Your task to perform on an android device: Go to Yahoo.com Image 0: 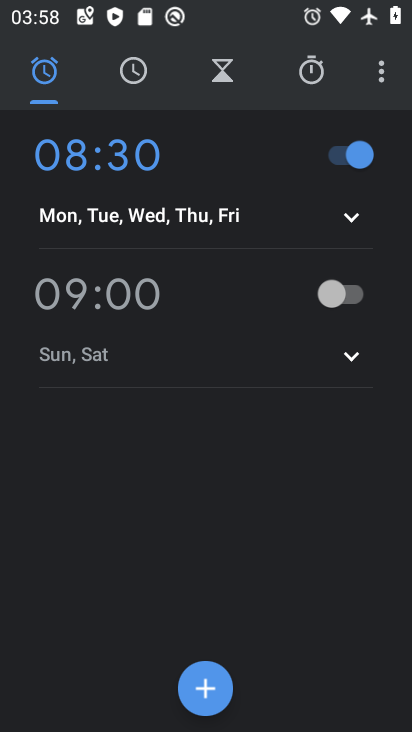
Step 0: press home button
Your task to perform on an android device: Go to Yahoo.com Image 1: 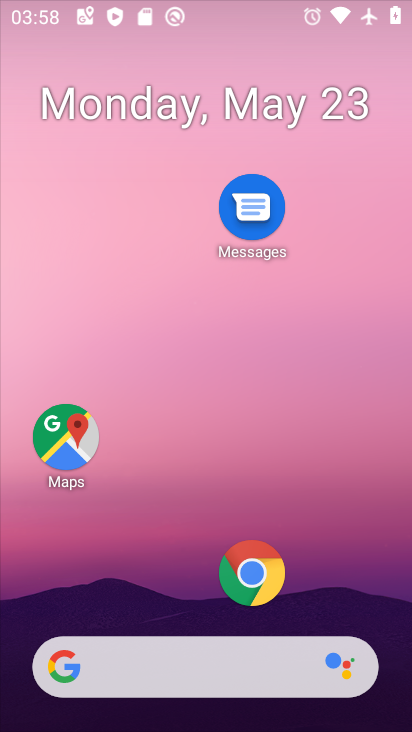
Step 1: drag from (278, 683) to (378, 153)
Your task to perform on an android device: Go to Yahoo.com Image 2: 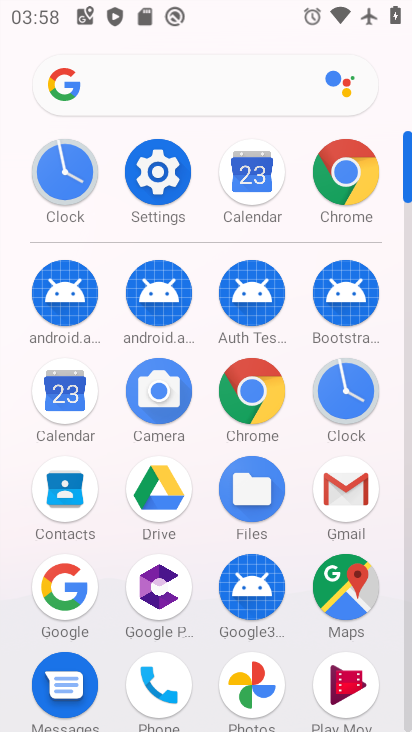
Step 2: click (267, 405)
Your task to perform on an android device: Go to Yahoo.com Image 3: 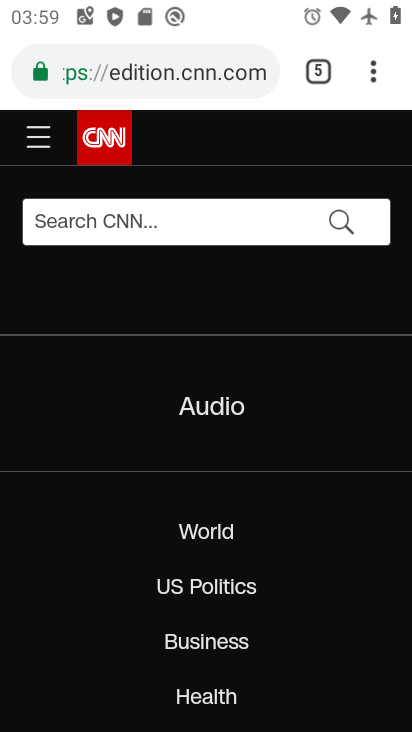
Step 3: drag from (375, 69) to (149, 132)
Your task to perform on an android device: Go to Yahoo.com Image 4: 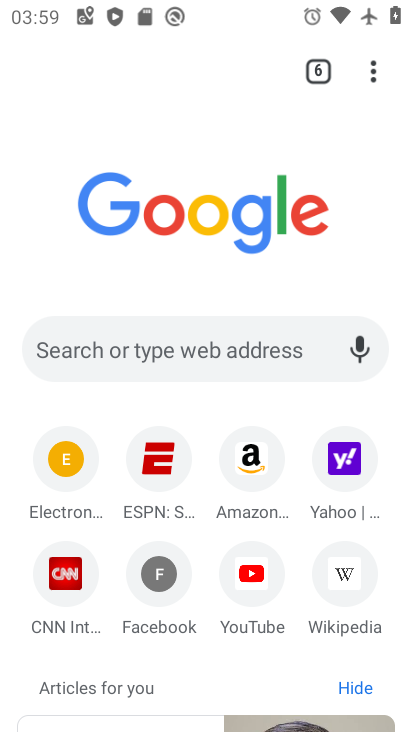
Step 4: click (335, 460)
Your task to perform on an android device: Go to Yahoo.com Image 5: 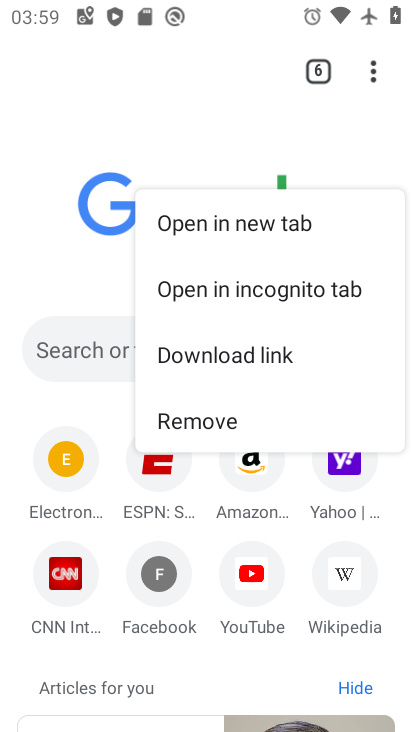
Step 5: click (326, 455)
Your task to perform on an android device: Go to Yahoo.com Image 6: 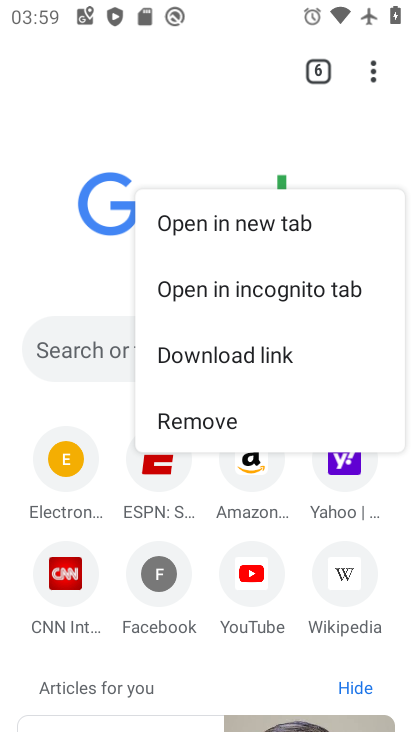
Step 6: click (332, 476)
Your task to perform on an android device: Go to Yahoo.com Image 7: 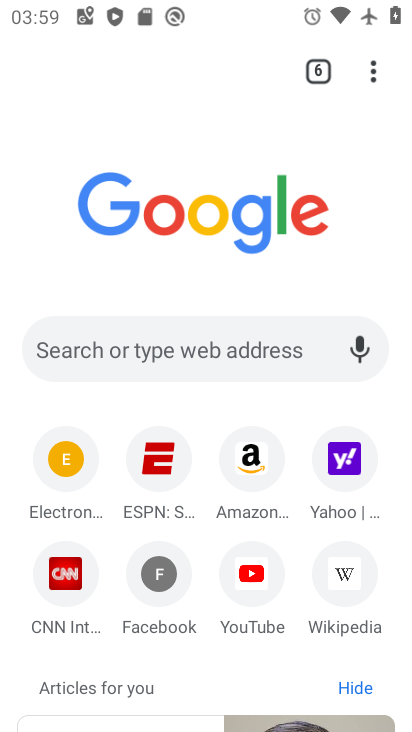
Step 7: click (353, 470)
Your task to perform on an android device: Go to Yahoo.com Image 8: 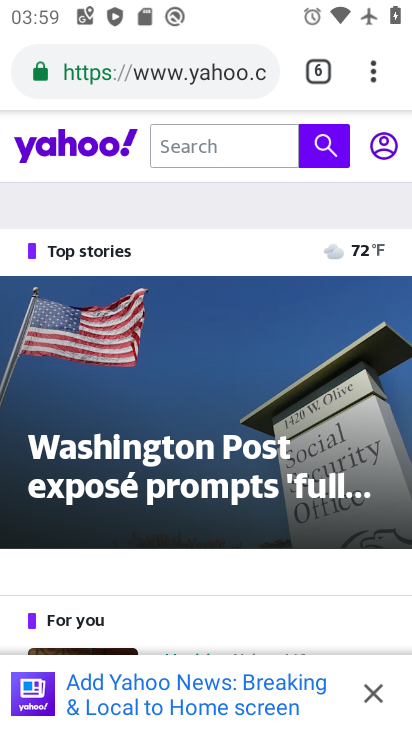
Step 8: task complete